Your task to perform on an android device: find which apps use the phone's location Image 0: 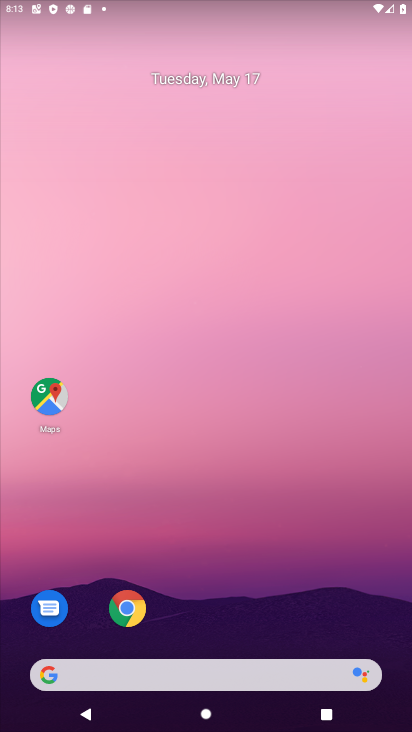
Step 0: drag from (229, 628) to (222, 94)
Your task to perform on an android device: find which apps use the phone's location Image 1: 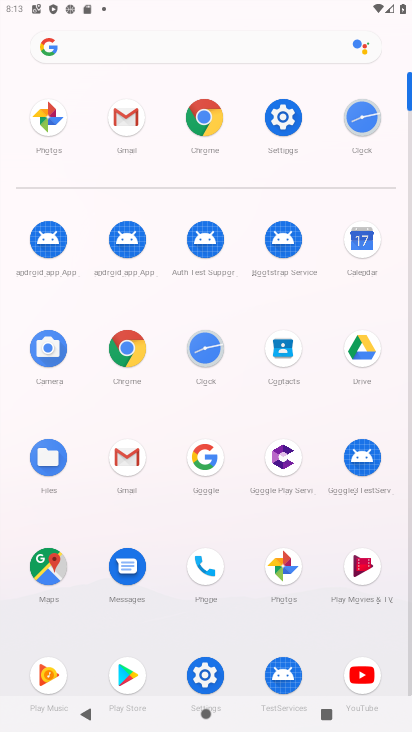
Step 1: click (287, 119)
Your task to perform on an android device: find which apps use the phone's location Image 2: 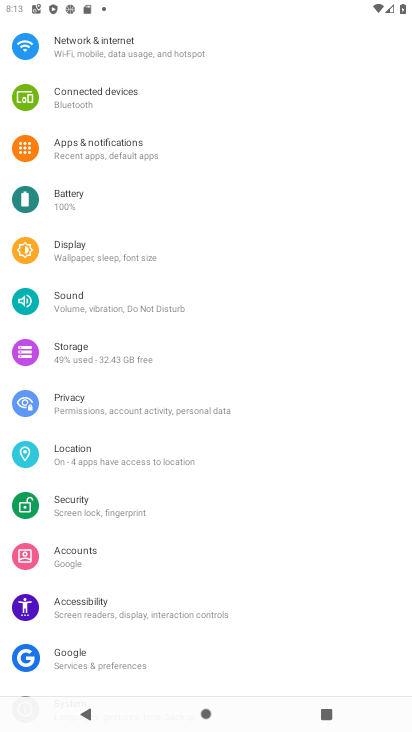
Step 2: click (90, 445)
Your task to perform on an android device: find which apps use the phone's location Image 3: 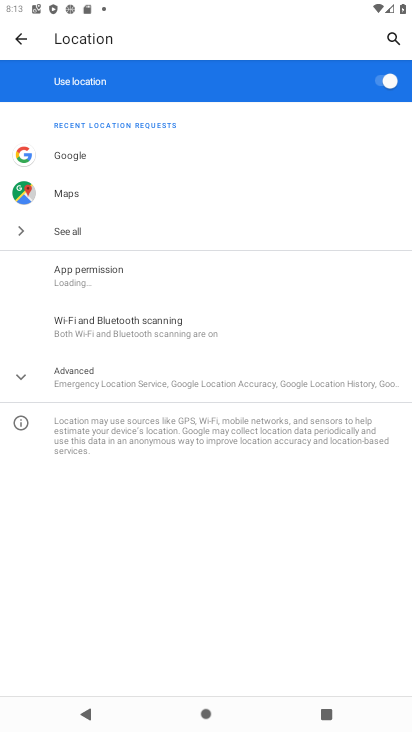
Step 3: click (64, 233)
Your task to perform on an android device: find which apps use the phone's location Image 4: 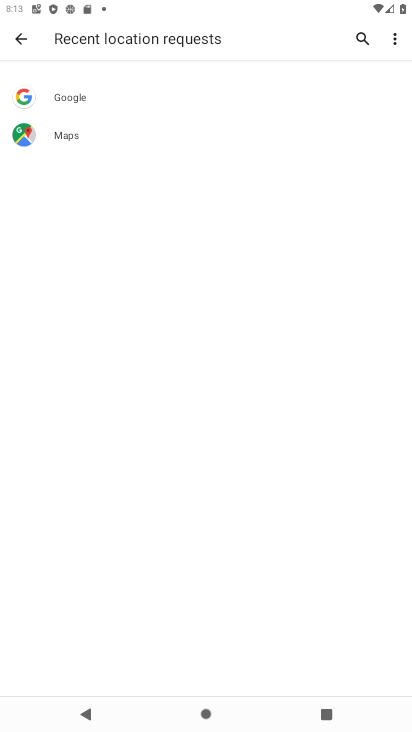
Step 4: task complete